Your task to perform on an android device: Show me popular games on the Play Store Image 0: 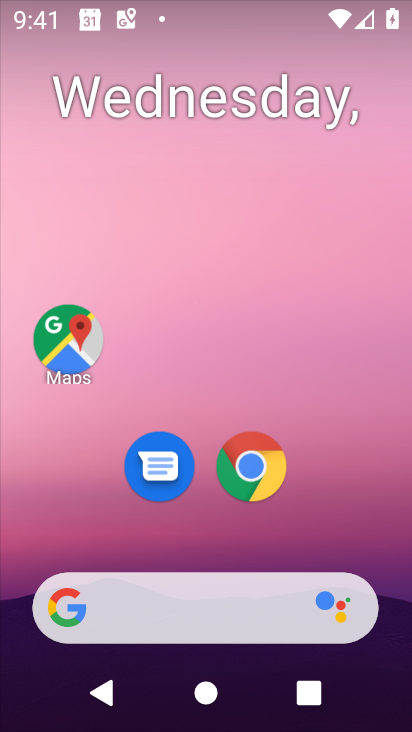
Step 0: drag from (328, 543) to (314, 152)
Your task to perform on an android device: Show me popular games on the Play Store Image 1: 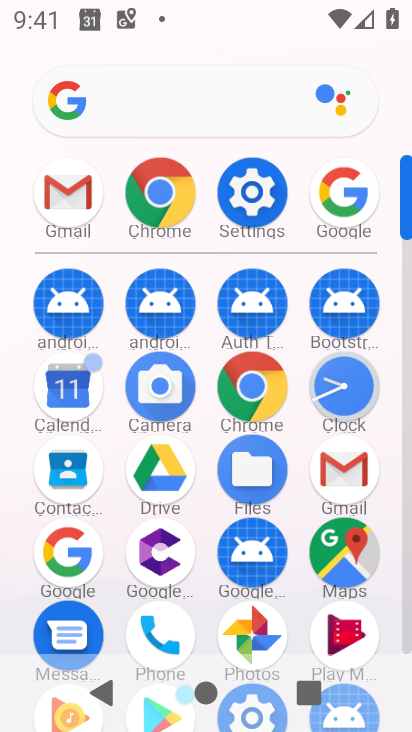
Step 1: drag from (198, 617) to (223, 234)
Your task to perform on an android device: Show me popular games on the Play Store Image 2: 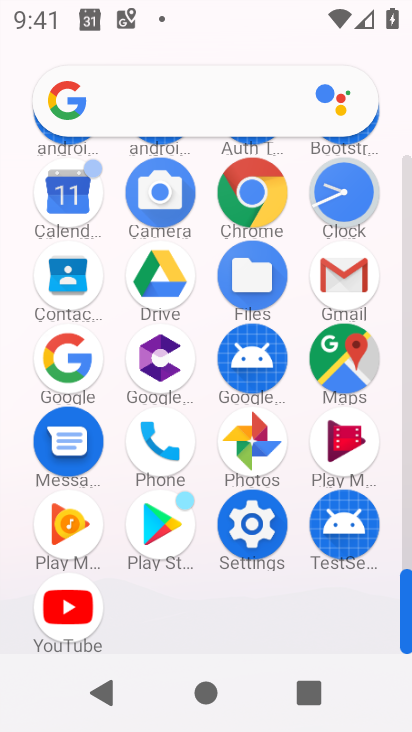
Step 2: click (158, 520)
Your task to perform on an android device: Show me popular games on the Play Store Image 3: 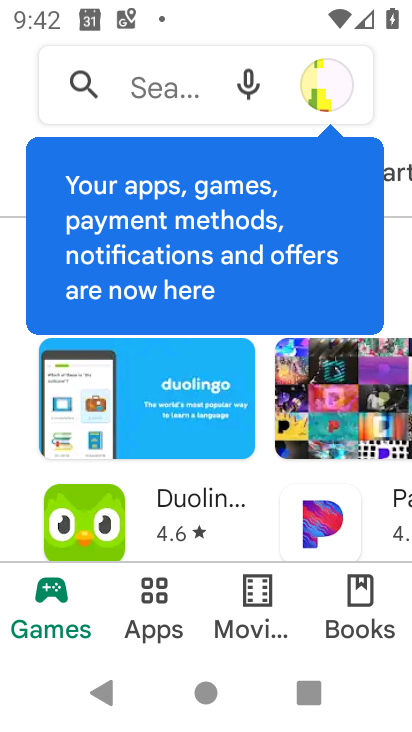
Step 3: task complete